Your task to perform on an android device: turn off location Image 0: 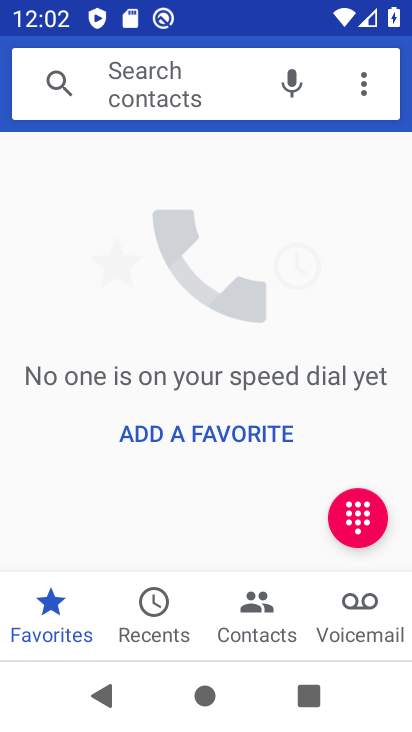
Step 0: press back button
Your task to perform on an android device: turn off location Image 1: 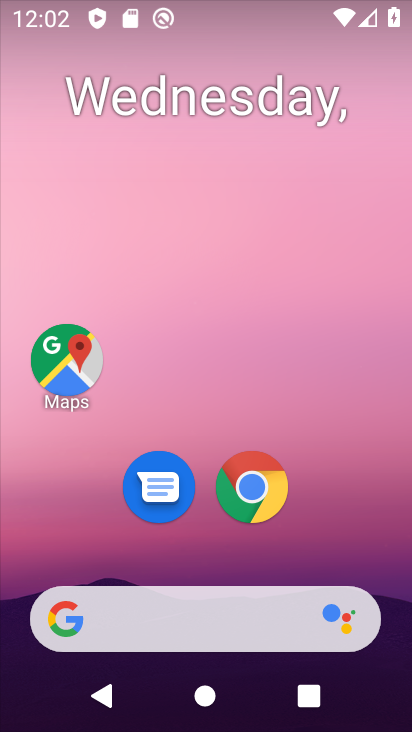
Step 1: click (259, 29)
Your task to perform on an android device: turn off location Image 2: 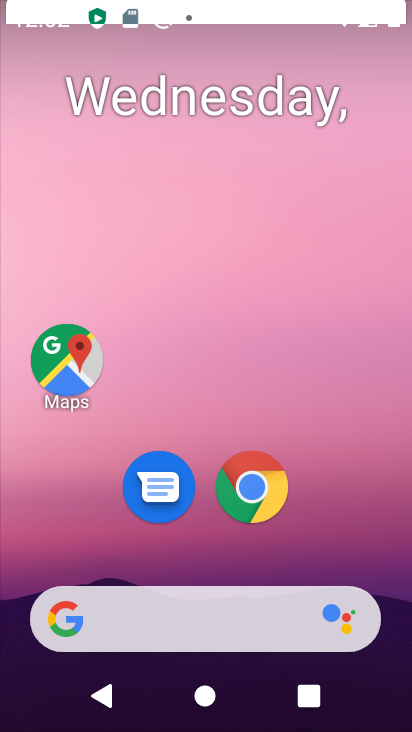
Step 2: drag from (227, 391) to (235, 44)
Your task to perform on an android device: turn off location Image 3: 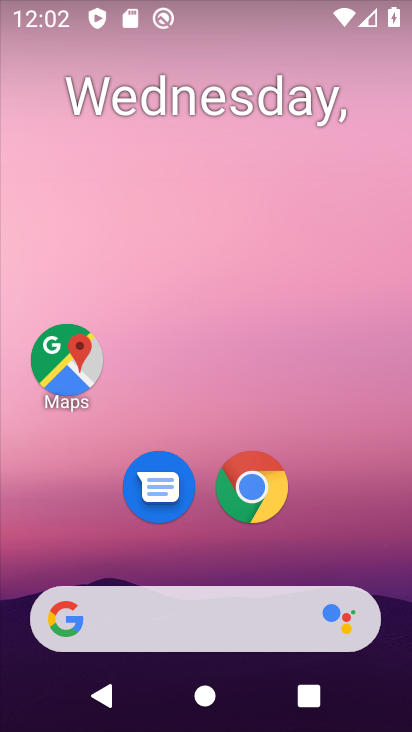
Step 3: click (231, 17)
Your task to perform on an android device: turn off location Image 4: 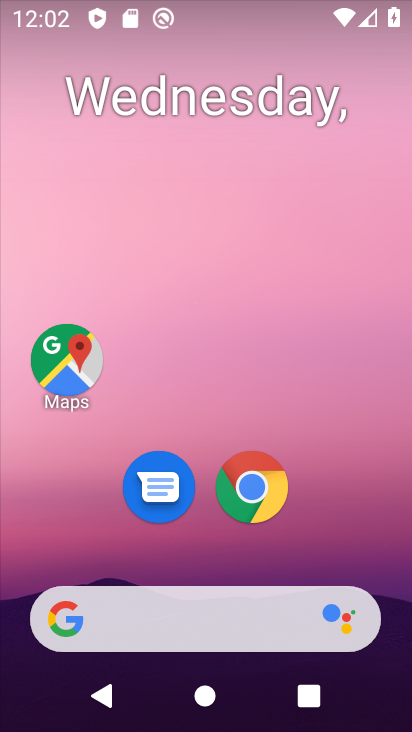
Step 4: drag from (221, 410) to (263, 121)
Your task to perform on an android device: turn off location Image 5: 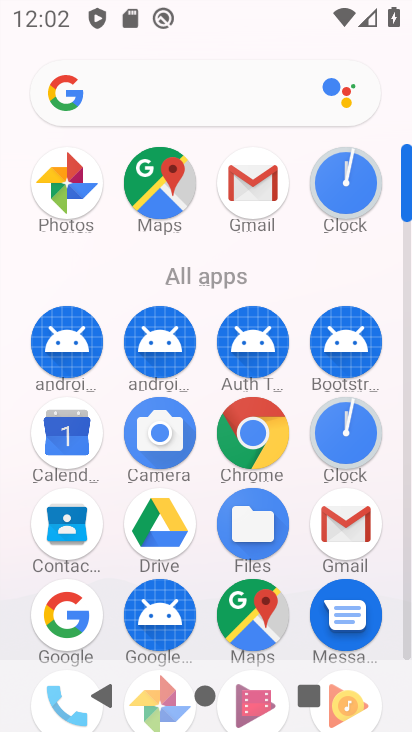
Step 5: drag from (182, 456) to (237, 80)
Your task to perform on an android device: turn off location Image 6: 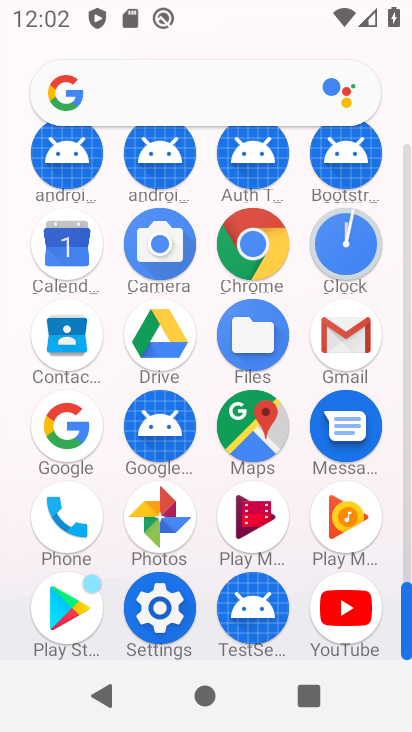
Step 6: click (155, 628)
Your task to perform on an android device: turn off location Image 7: 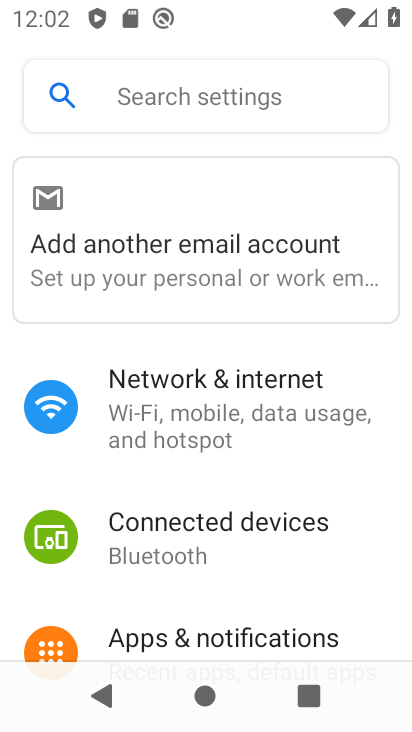
Step 7: drag from (204, 566) to (277, 180)
Your task to perform on an android device: turn off location Image 8: 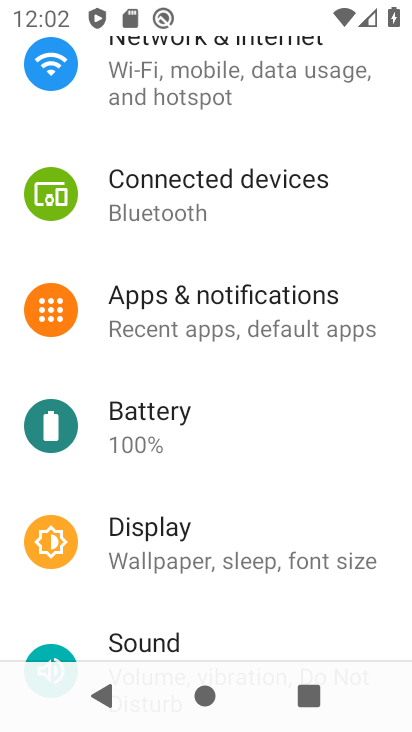
Step 8: drag from (184, 580) to (272, 207)
Your task to perform on an android device: turn off location Image 9: 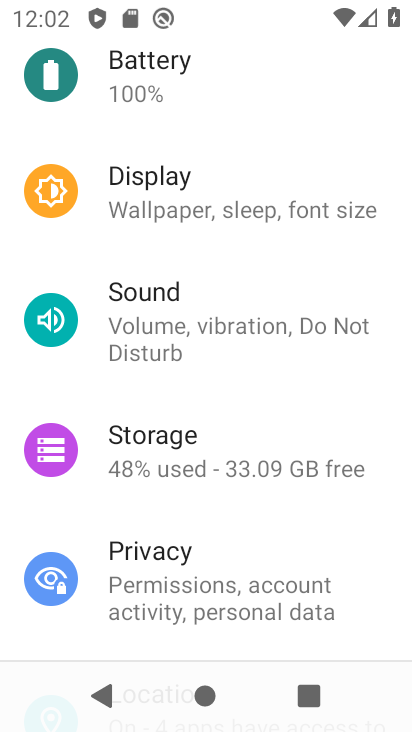
Step 9: drag from (166, 542) to (233, 334)
Your task to perform on an android device: turn off location Image 10: 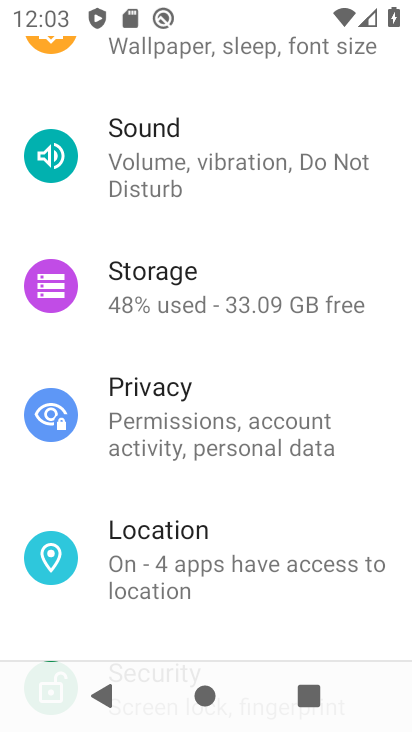
Step 10: click (162, 529)
Your task to perform on an android device: turn off location Image 11: 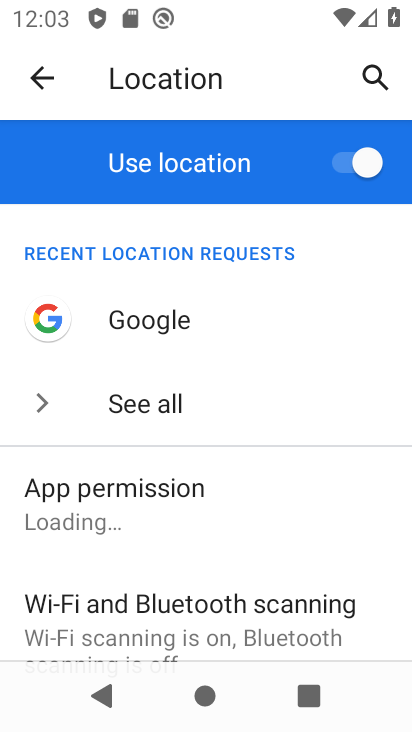
Step 11: click (363, 160)
Your task to perform on an android device: turn off location Image 12: 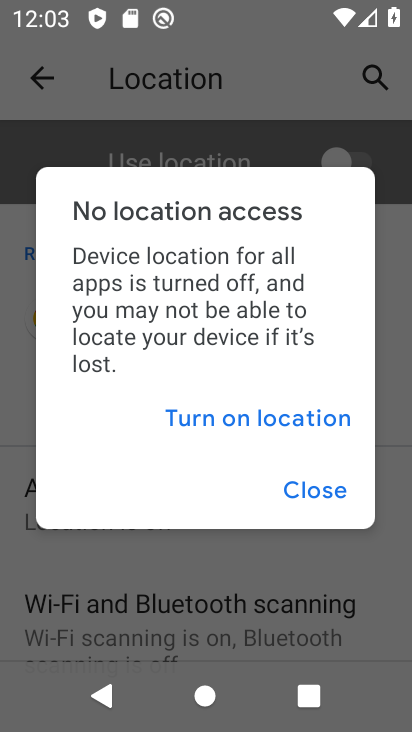
Step 12: task complete